Your task to perform on an android device: Open Google Maps Image 0: 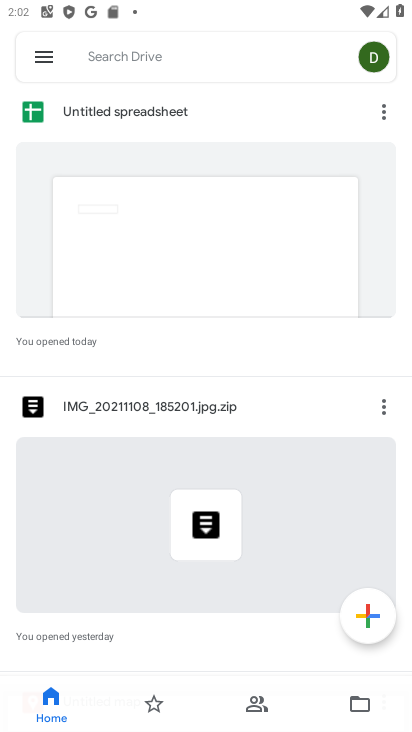
Step 0: press home button
Your task to perform on an android device: Open Google Maps Image 1: 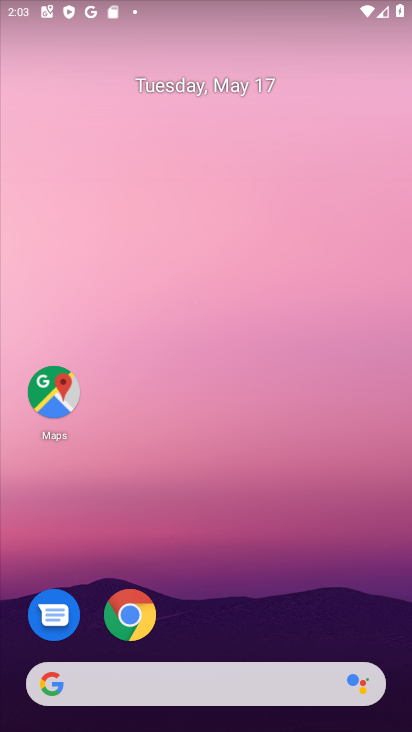
Step 1: drag from (310, 575) to (323, 321)
Your task to perform on an android device: Open Google Maps Image 2: 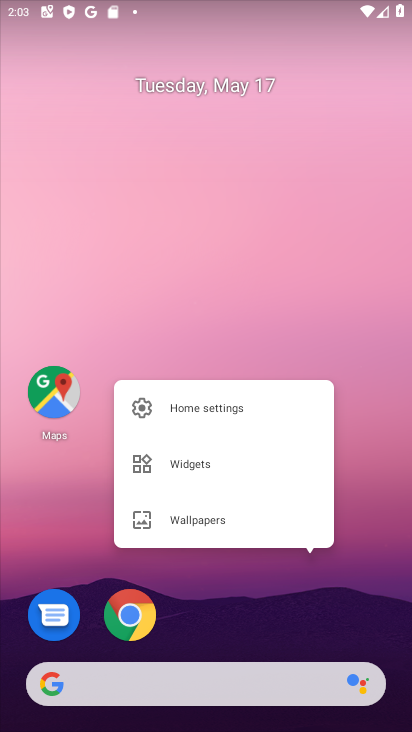
Step 2: click (388, 548)
Your task to perform on an android device: Open Google Maps Image 3: 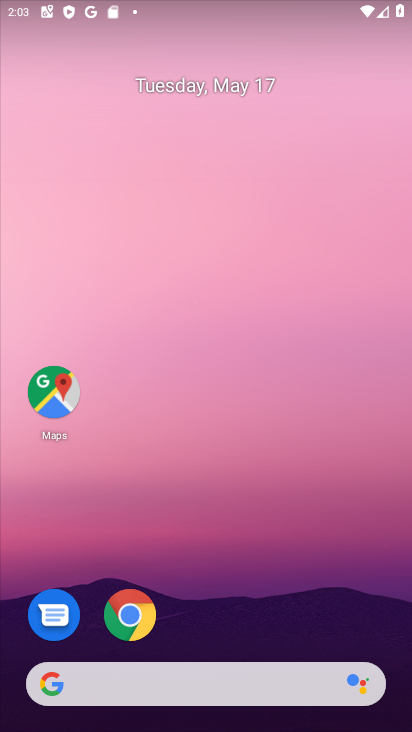
Step 3: drag from (383, 598) to (314, 62)
Your task to perform on an android device: Open Google Maps Image 4: 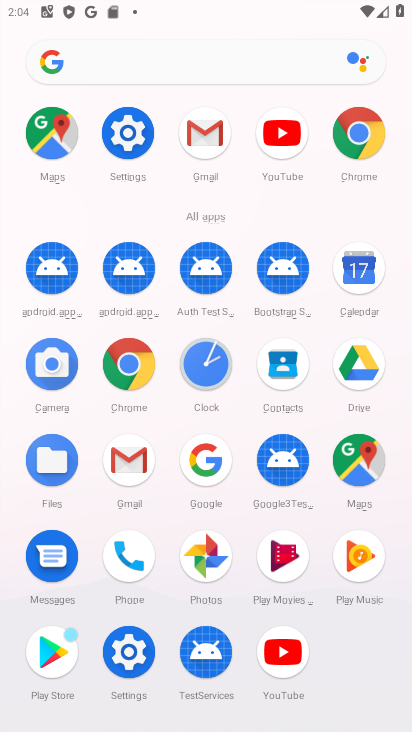
Step 4: click (30, 118)
Your task to perform on an android device: Open Google Maps Image 5: 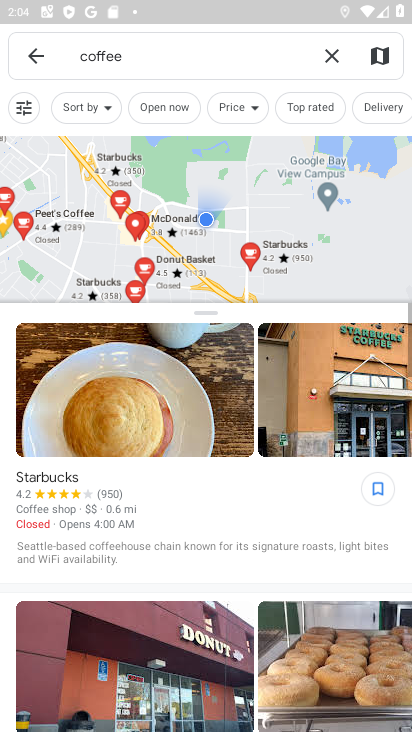
Step 5: task complete